Your task to perform on an android device: turn on location history Image 0: 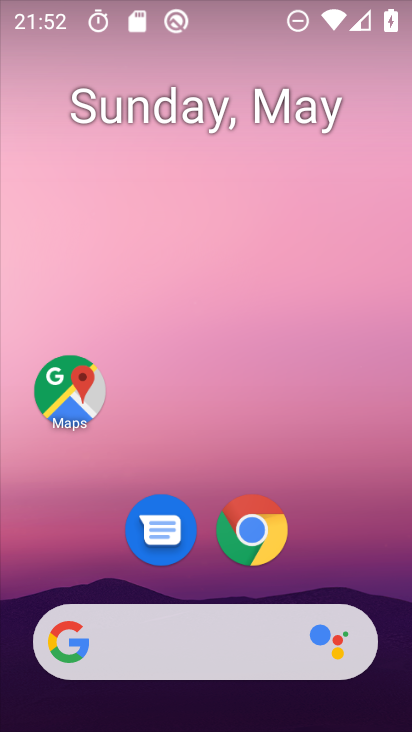
Step 0: press home button
Your task to perform on an android device: turn on location history Image 1: 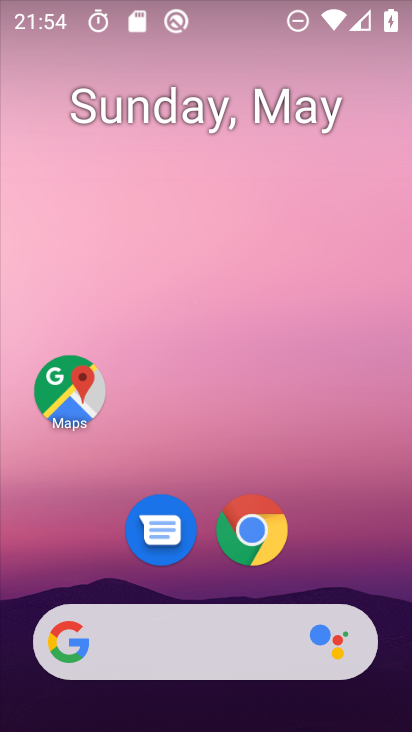
Step 1: drag from (239, 656) to (224, 237)
Your task to perform on an android device: turn on location history Image 2: 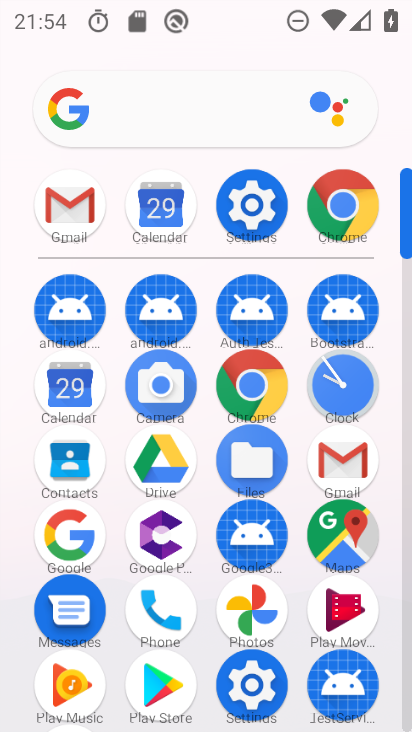
Step 2: click (283, 200)
Your task to perform on an android device: turn on location history Image 3: 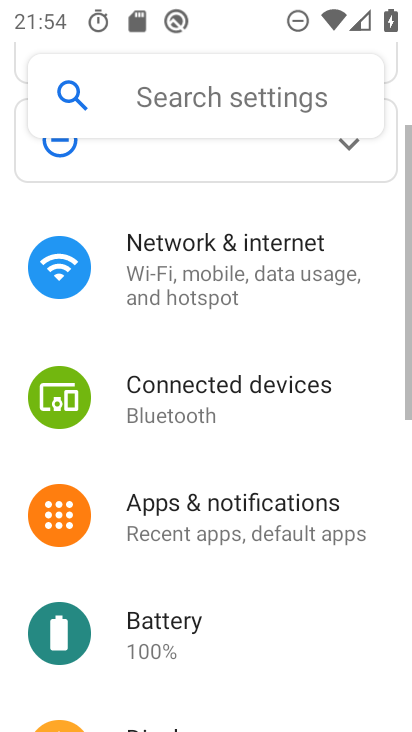
Step 3: click (182, 101)
Your task to perform on an android device: turn on location history Image 4: 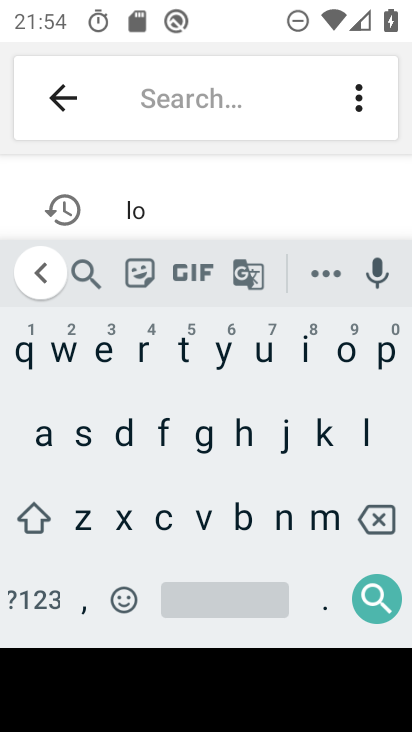
Step 4: click (151, 225)
Your task to perform on an android device: turn on location history Image 5: 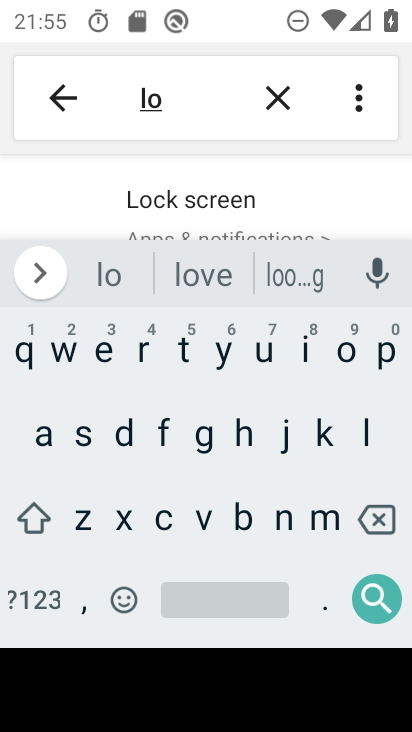
Step 5: press back button
Your task to perform on an android device: turn on location history Image 6: 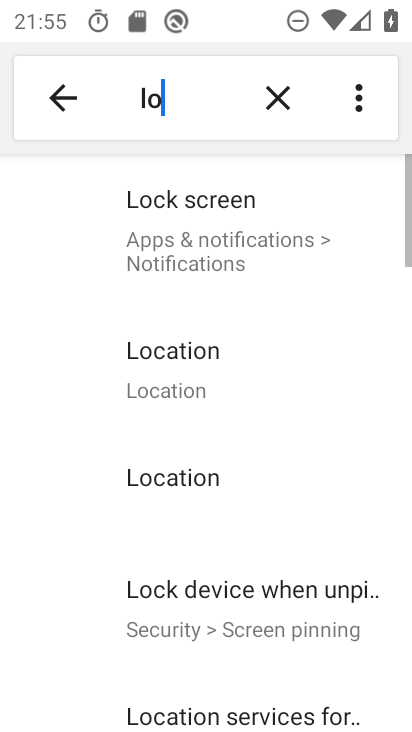
Step 6: click (167, 362)
Your task to perform on an android device: turn on location history Image 7: 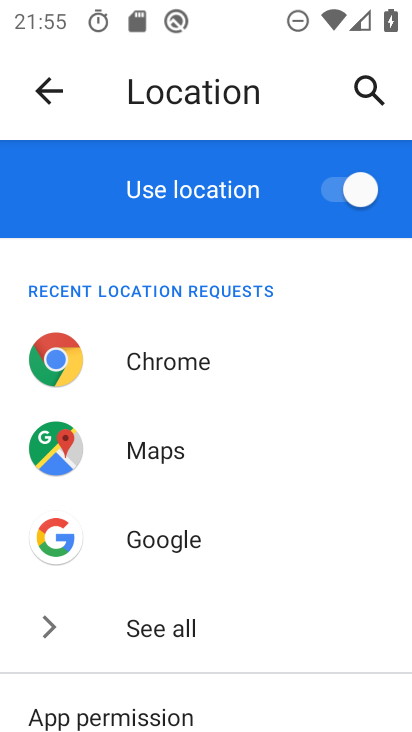
Step 7: drag from (286, 642) to (240, 177)
Your task to perform on an android device: turn on location history Image 8: 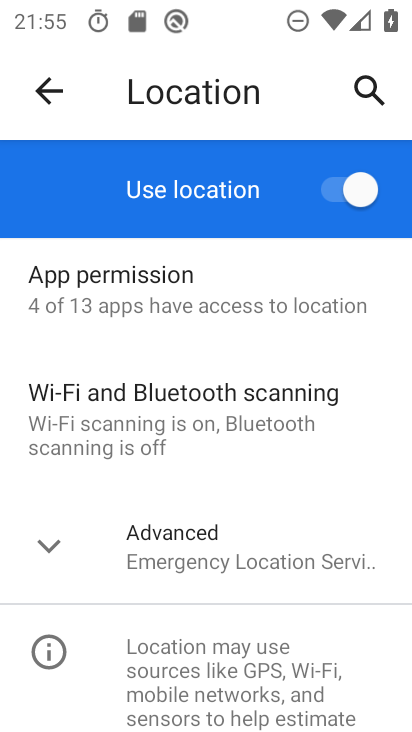
Step 8: click (64, 543)
Your task to perform on an android device: turn on location history Image 9: 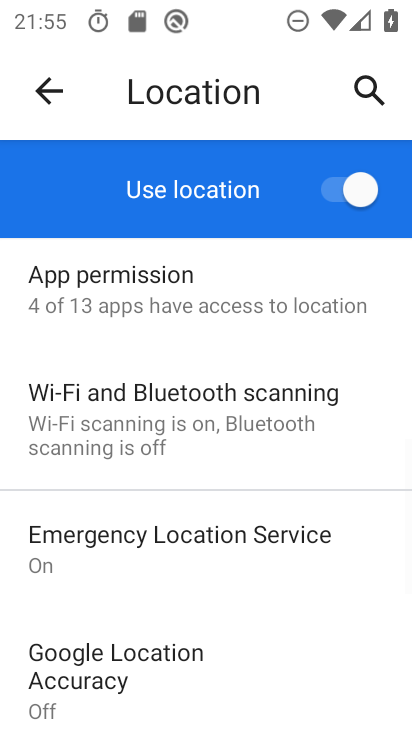
Step 9: drag from (161, 654) to (170, 260)
Your task to perform on an android device: turn on location history Image 10: 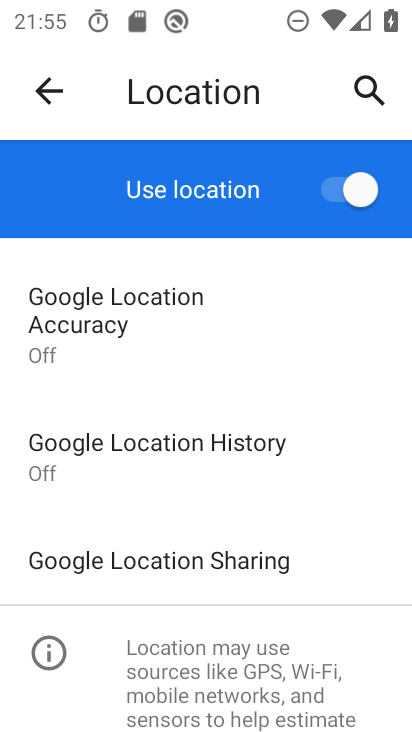
Step 10: click (155, 427)
Your task to perform on an android device: turn on location history Image 11: 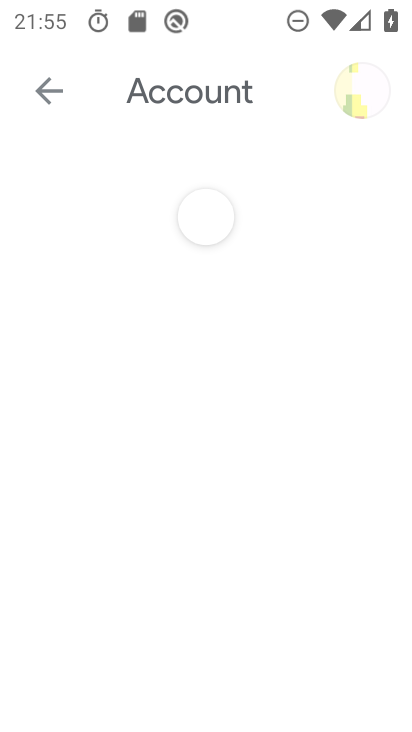
Step 11: task complete